Your task to perform on an android device: turn off sleep mode Image 0: 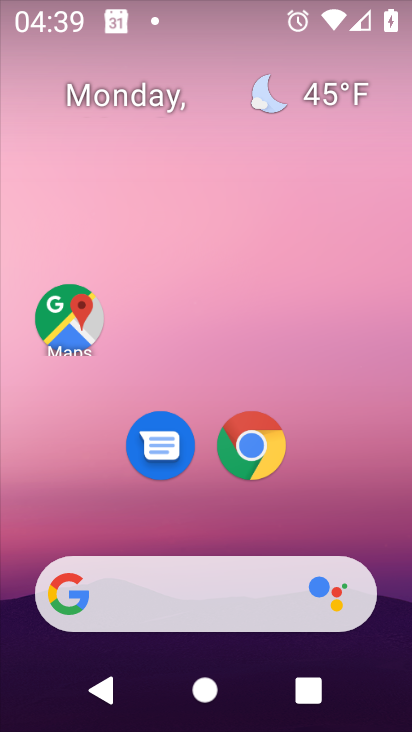
Step 0: drag from (264, 510) to (263, 49)
Your task to perform on an android device: turn off sleep mode Image 1: 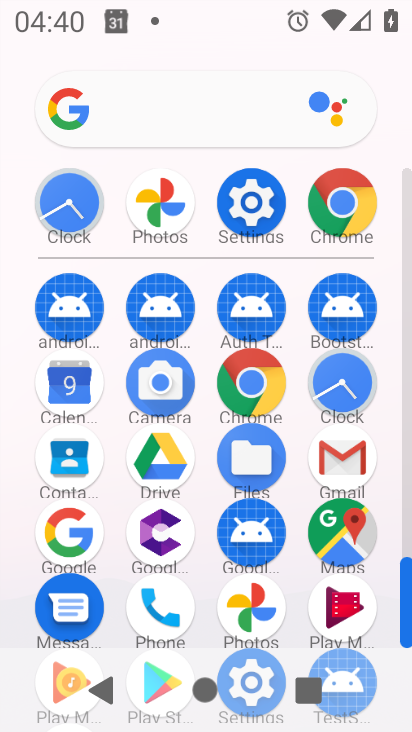
Step 1: click (244, 210)
Your task to perform on an android device: turn off sleep mode Image 2: 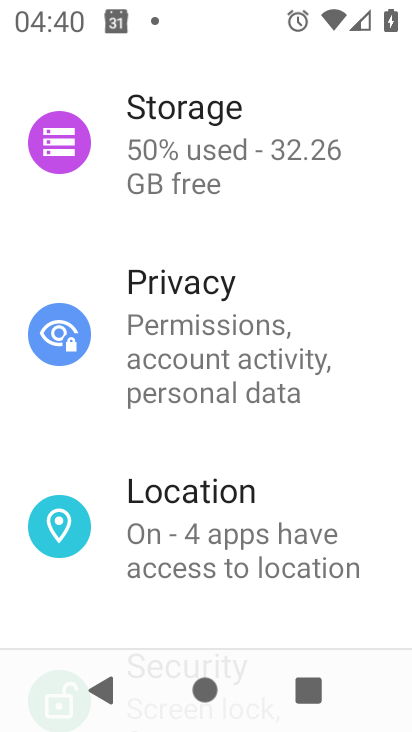
Step 2: task complete